Your task to perform on an android device: Open the calendar app, open the side menu, and click the "Day" option Image 0: 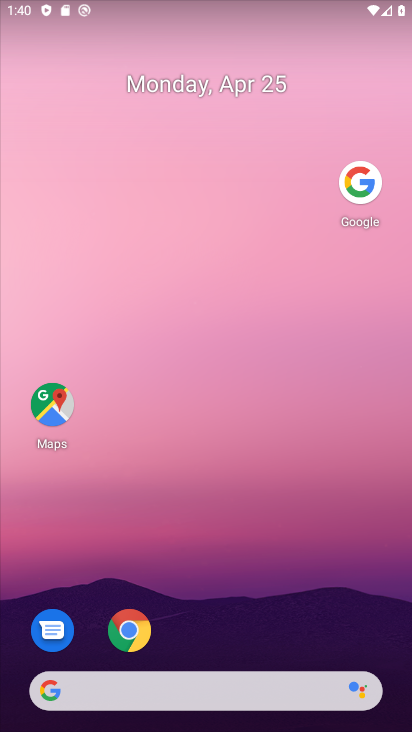
Step 0: drag from (224, 664) to (180, 11)
Your task to perform on an android device: Open the calendar app, open the side menu, and click the "Day" option Image 1: 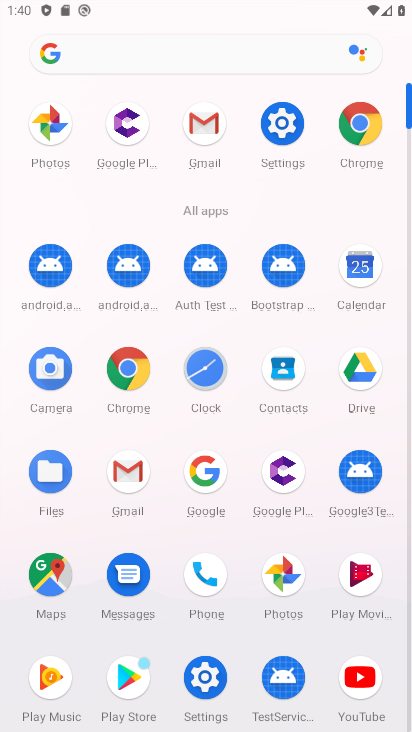
Step 1: click (367, 268)
Your task to perform on an android device: Open the calendar app, open the side menu, and click the "Day" option Image 2: 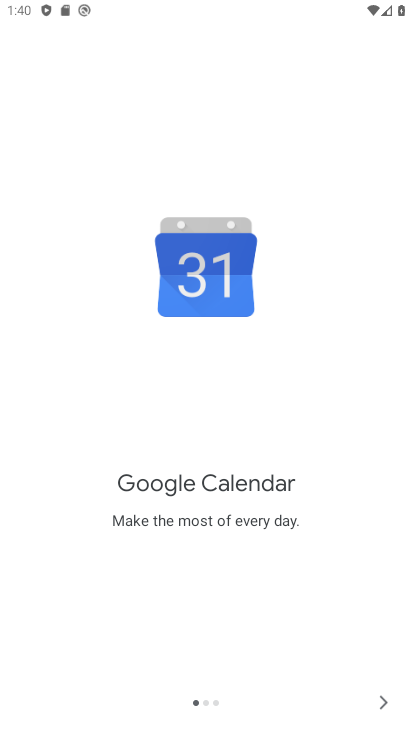
Step 2: click (387, 711)
Your task to perform on an android device: Open the calendar app, open the side menu, and click the "Day" option Image 3: 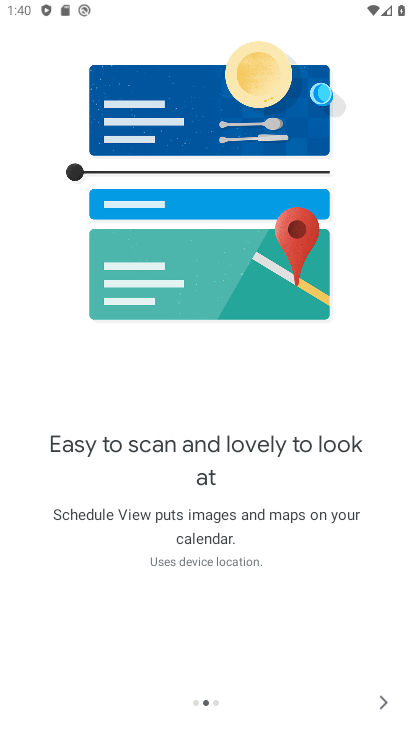
Step 3: click (390, 706)
Your task to perform on an android device: Open the calendar app, open the side menu, and click the "Day" option Image 4: 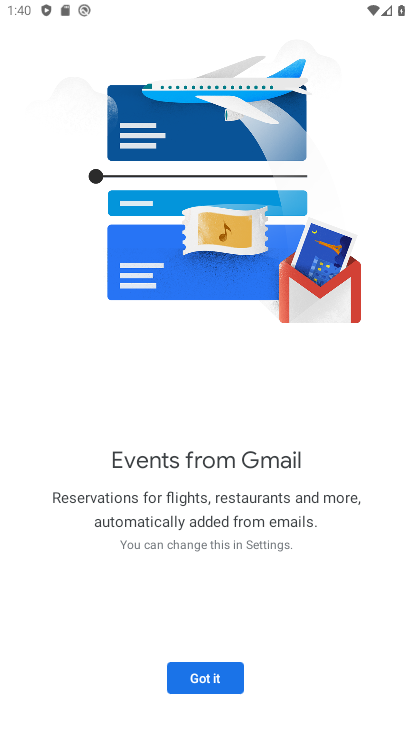
Step 4: click (217, 662)
Your task to perform on an android device: Open the calendar app, open the side menu, and click the "Day" option Image 5: 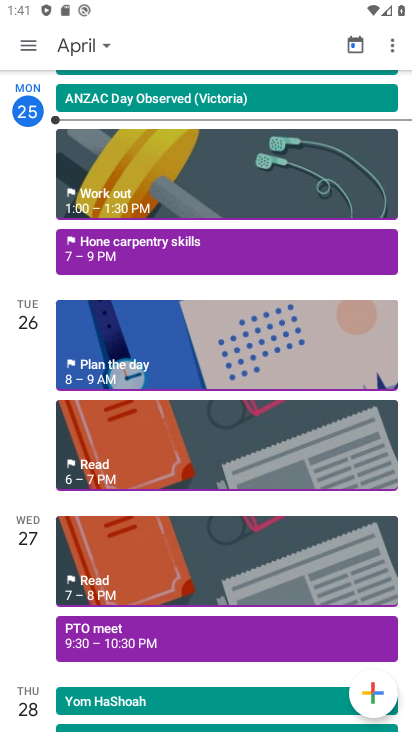
Step 5: click (29, 46)
Your task to perform on an android device: Open the calendar app, open the side menu, and click the "Day" option Image 6: 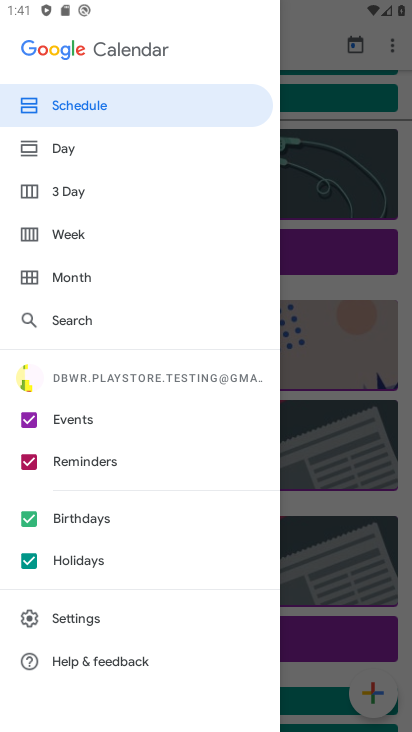
Step 6: click (58, 155)
Your task to perform on an android device: Open the calendar app, open the side menu, and click the "Day" option Image 7: 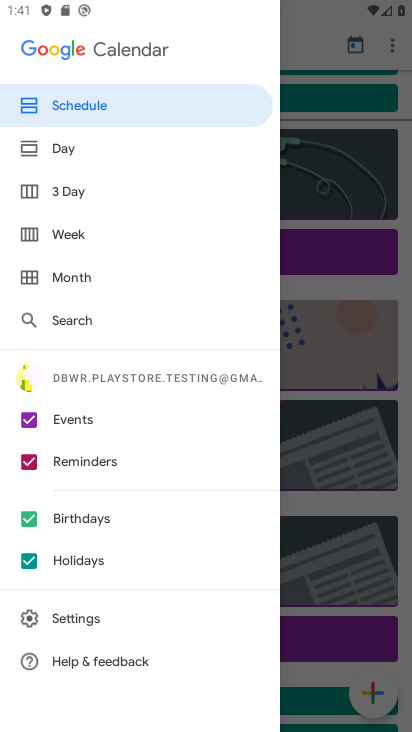
Step 7: click (56, 145)
Your task to perform on an android device: Open the calendar app, open the side menu, and click the "Day" option Image 8: 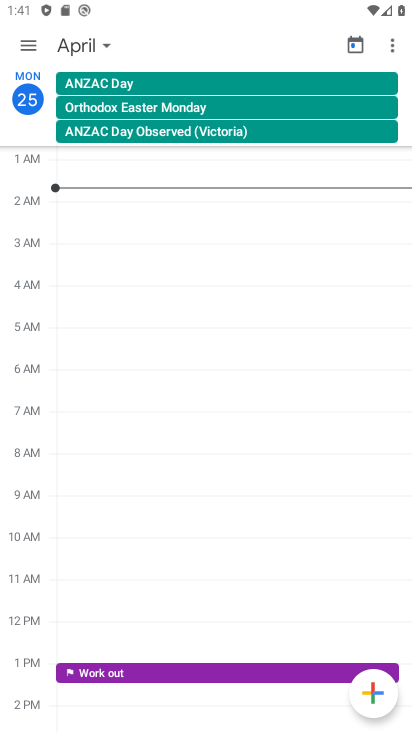
Step 8: task complete